Your task to perform on an android device: Go to battery settings Image 0: 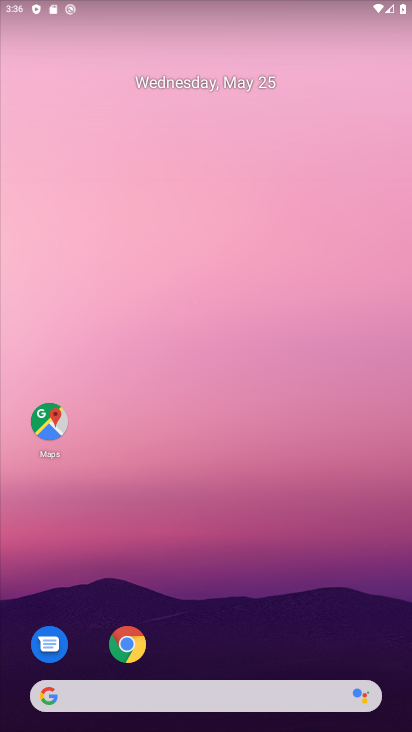
Step 0: drag from (248, 647) to (239, 8)
Your task to perform on an android device: Go to battery settings Image 1: 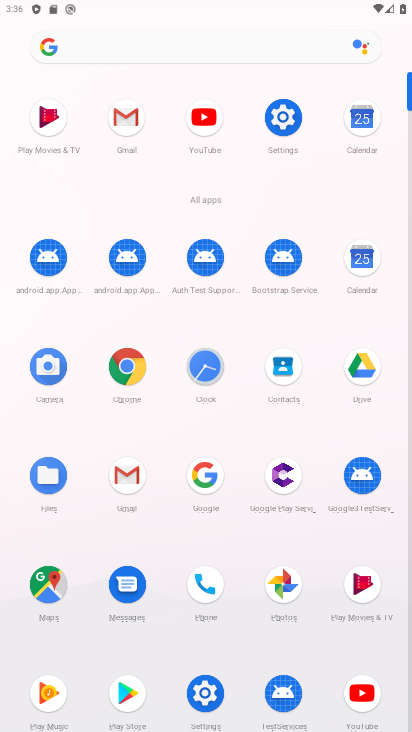
Step 1: click (286, 122)
Your task to perform on an android device: Go to battery settings Image 2: 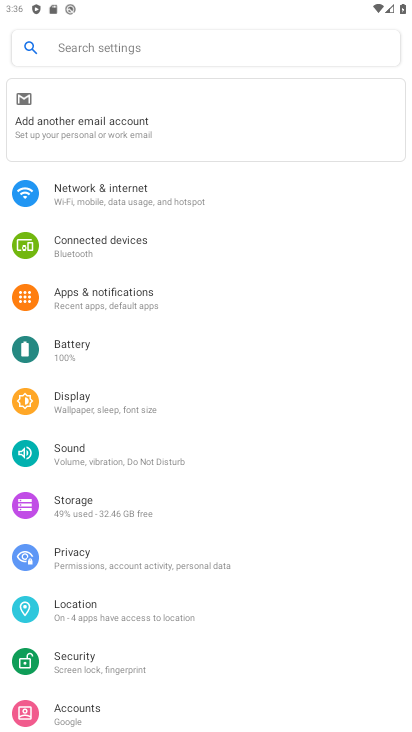
Step 2: click (61, 348)
Your task to perform on an android device: Go to battery settings Image 3: 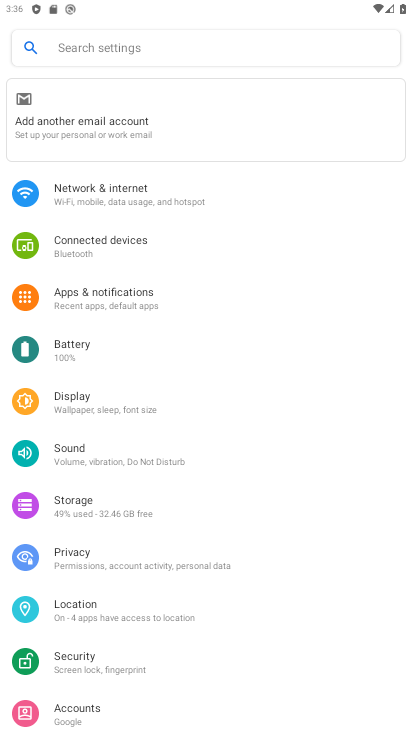
Step 3: click (65, 353)
Your task to perform on an android device: Go to battery settings Image 4: 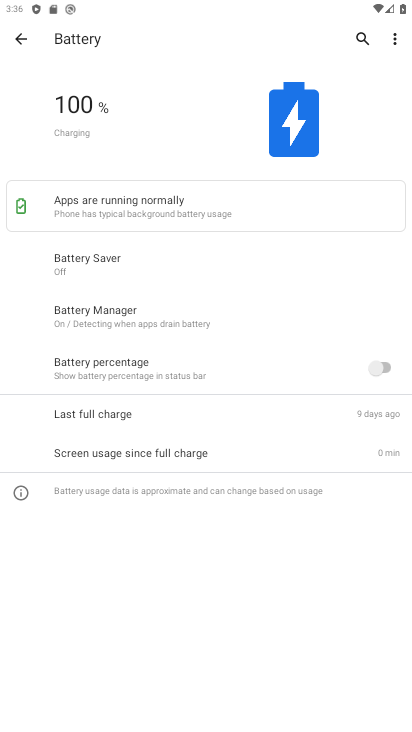
Step 4: task complete